Your task to perform on an android device: turn notification dots on Image 0: 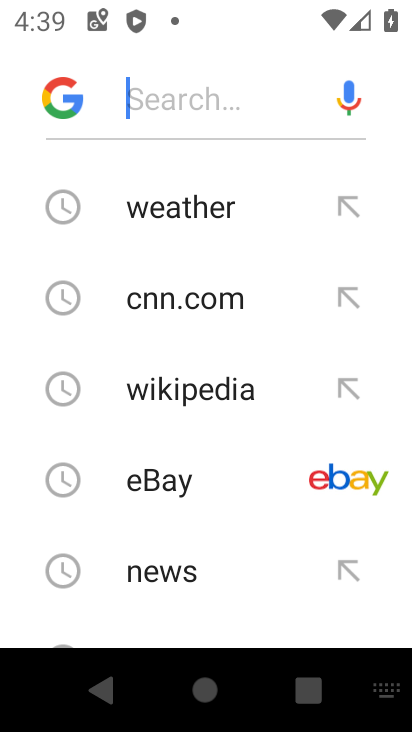
Step 0: press home button
Your task to perform on an android device: turn notification dots on Image 1: 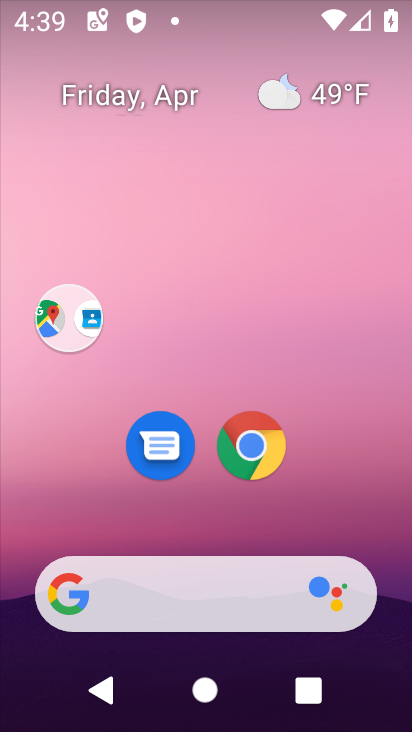
Step 1: drag from (382, 475) to (326, 1)
Your task to perform on an android device: turn notification dots on Image 2: 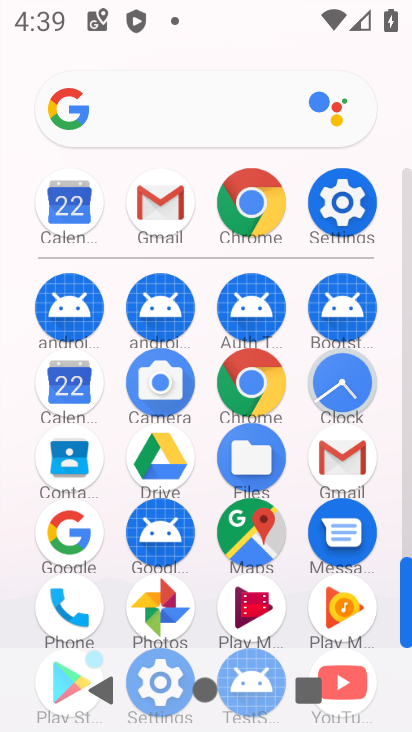
Step 2: click (349, 207)
Your task to perform on an android device: turn notification dots on Image 3: 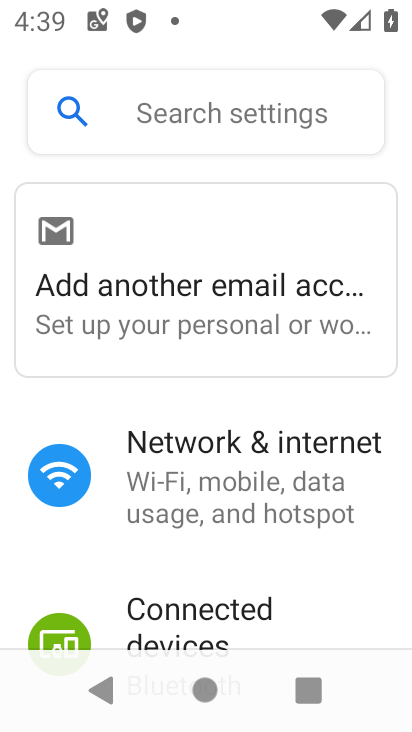
Step 3: drag from (193, 557) to (221, 172)
Your task to perform on an android device: turn notification dots on Image 4: 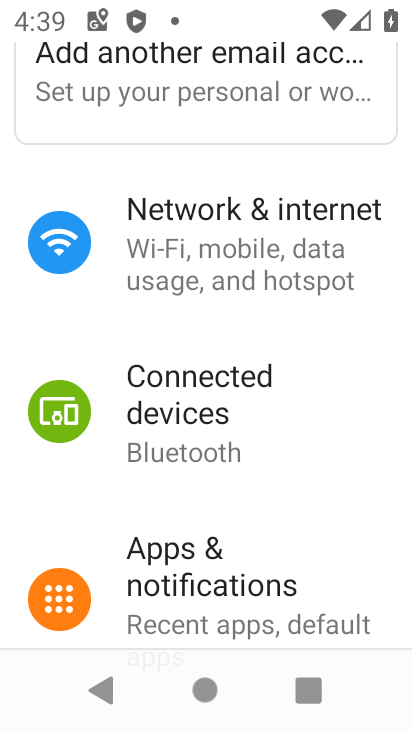
Step 4: click (172, 582)
Your task to perform on an android device: turn notification dots on Image 5: 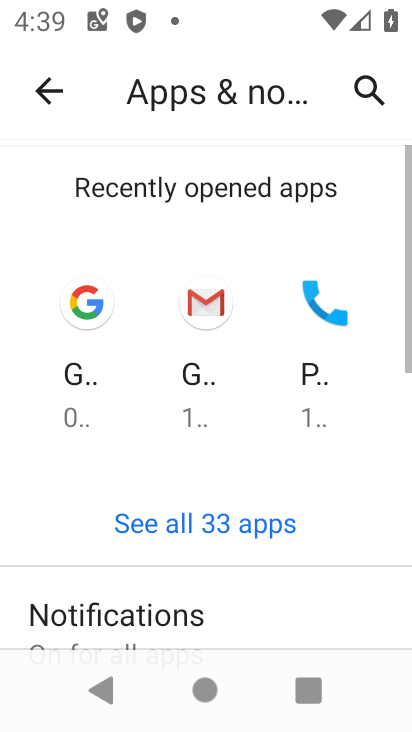
Step 5: drag from (265, 605) to (257, 107)
Your task to perform on an android device: turn notification dots on Image 6: 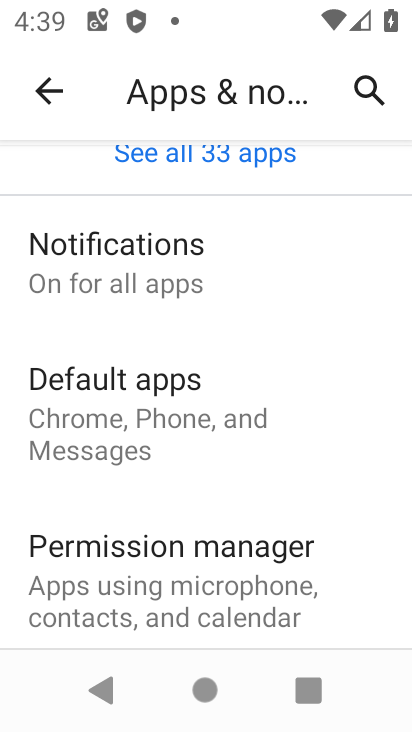
Step 6: click (190, 264)
Your task to perform on an android device: turn notification dots on Image 7: 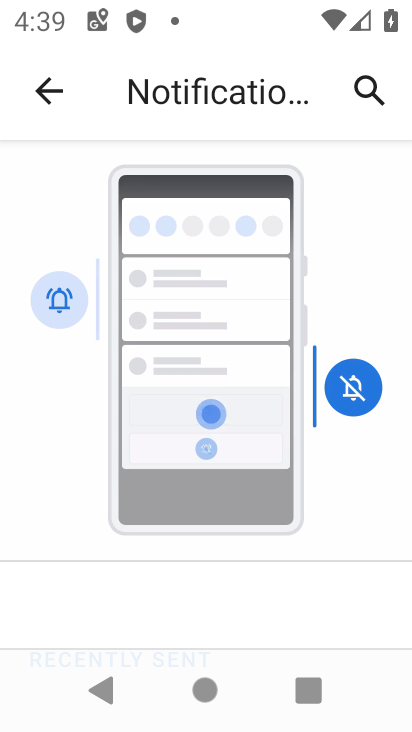
Step 7: drag from (293, 519) to (281, 167)
Your task to perform on an android device: turn notification dots on Image 8: 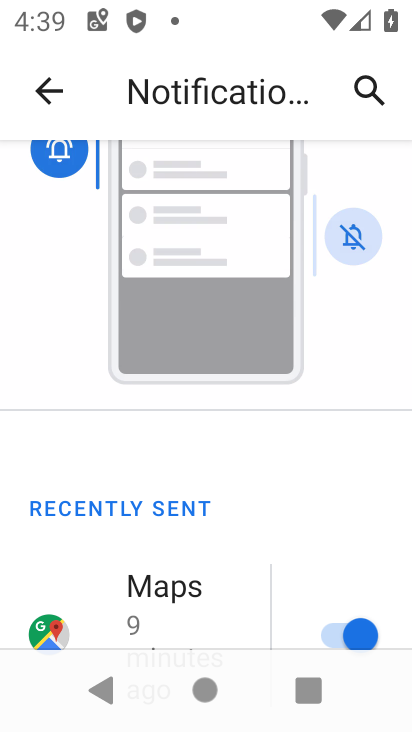
Step 8: drag from (252, 495) to (251, 0)
Your task to perform on an android device: turn notification dots on Image 9: 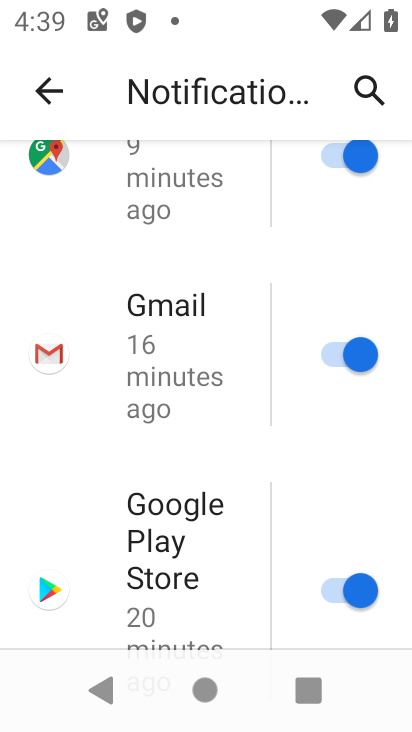
Step 9: drag from (203, 485) to (284, 77)
Your task to perform on an android device: turn notification dots on Image 10: 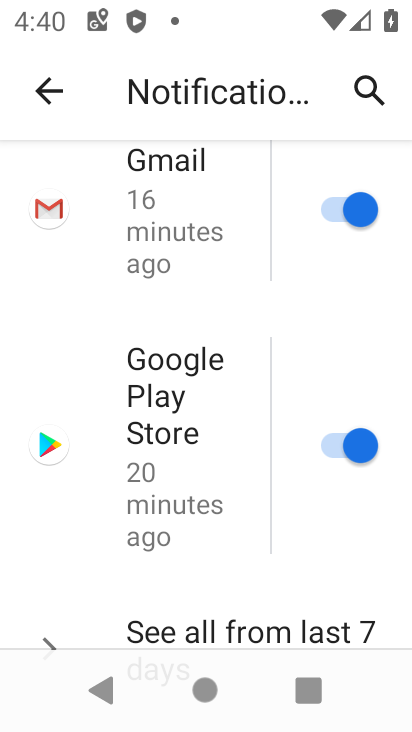
Step 10: drag from (193, 612) to (244, 137)
Your task to perform on an android device: turn notification dots on Image 11: 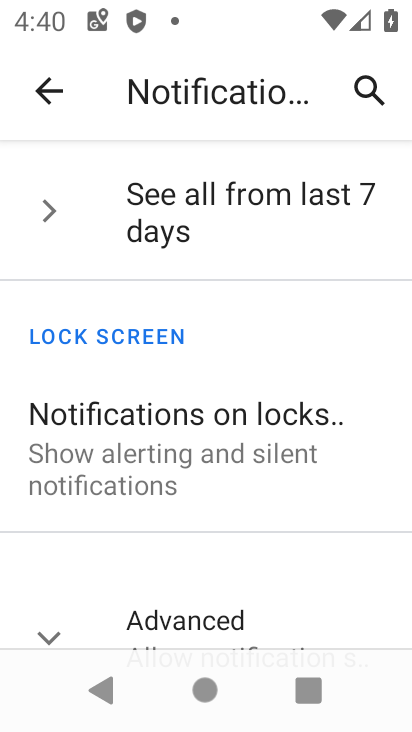
Step 11: drag from (230, 407) to (236, 62)
Your task to perform on an android device: turn notification dots on Image 12: 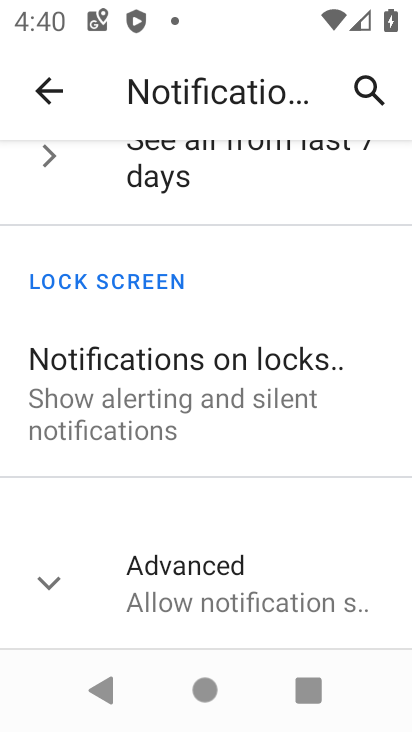
Step 12: click (182, 561)
Your task to perform on an android device: turn notification dots on Image 13: 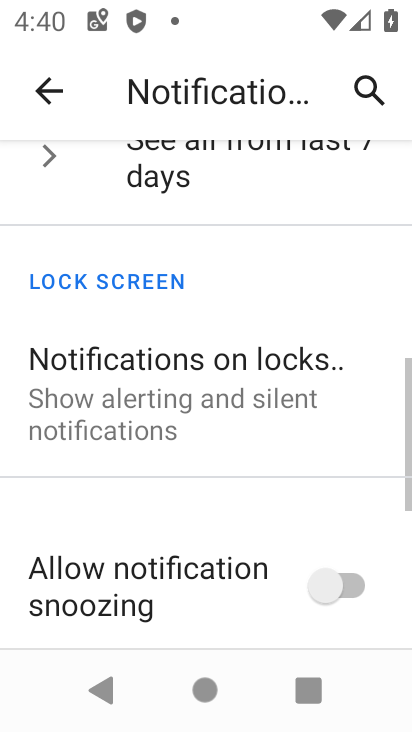
Step 13: task complete